Your task to perform on an android device: Search for vegetarian restaurants on Maps Image 0: 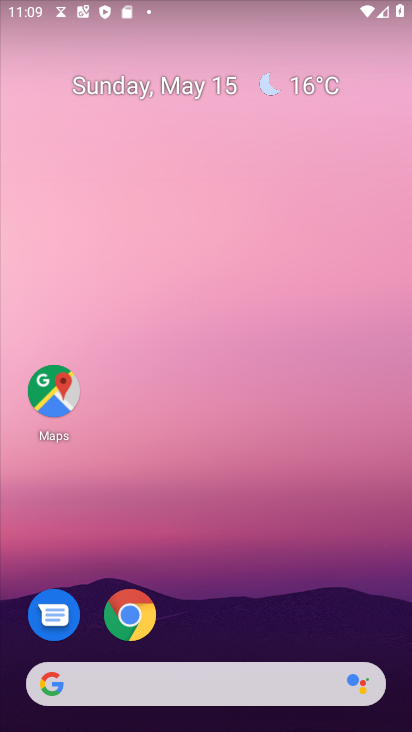
Step 0: drag from (360, 680) to (384, 6)
Your task to perform on an android device: Search for vegetarian restaurants on Maps Image 1: 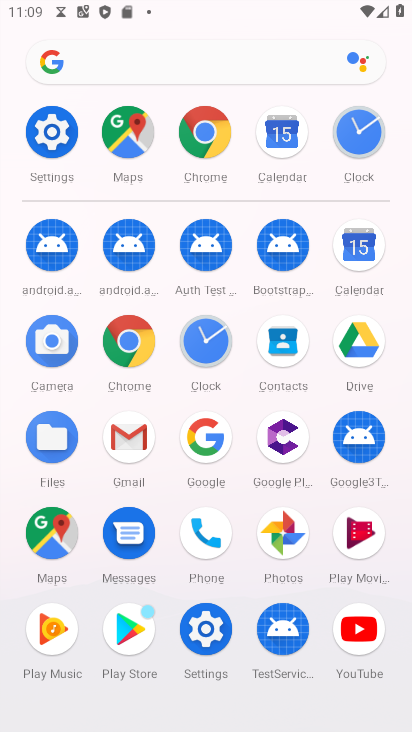
Step 1: click (64, 522)
Your task to perform on an android device: Search for vegetarian restaurants on Maps Image 2: 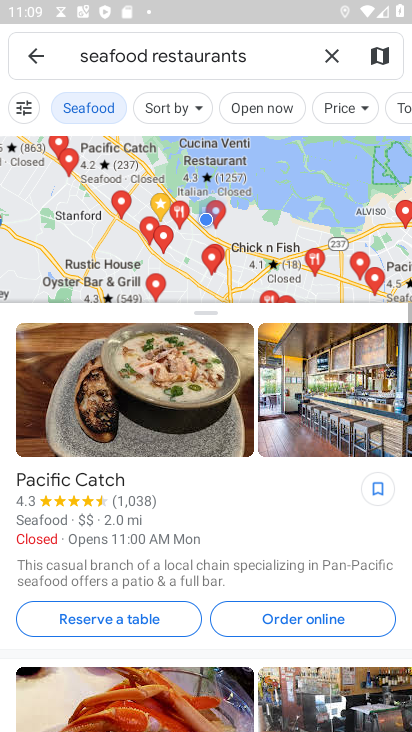
Step 2: click (323, 51)
Your task to perform on an android device: Search for vegetarian restaurants on Maps Image 3: 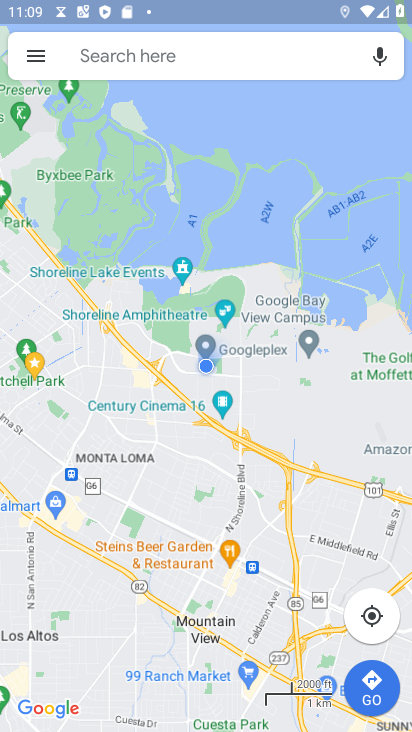
Step 3: click (276, 66)
Your task to perform on an android device: Search for vegetarian restaurants on Maps Image 4: 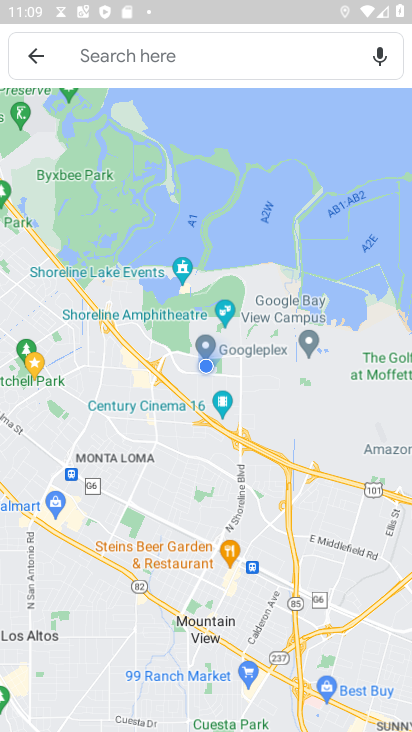
Step 4: click (276, 66)
Your task to perform on an android device: Search for vegetarian restaurants on Maps Image 5: 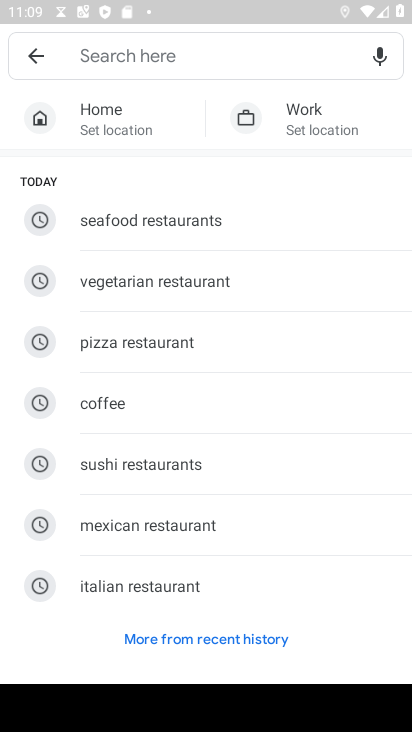
Step 5: click (216, 290)
Your task to perform on an android device: Search for vegetarian restaurants on Maps Image 6: 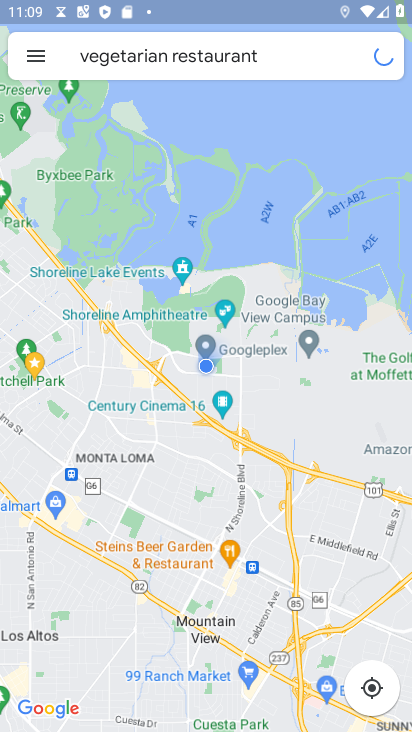
Step 6: task complete